Your task to perform on an android device: turn on javascript in the chrome app Image 0: 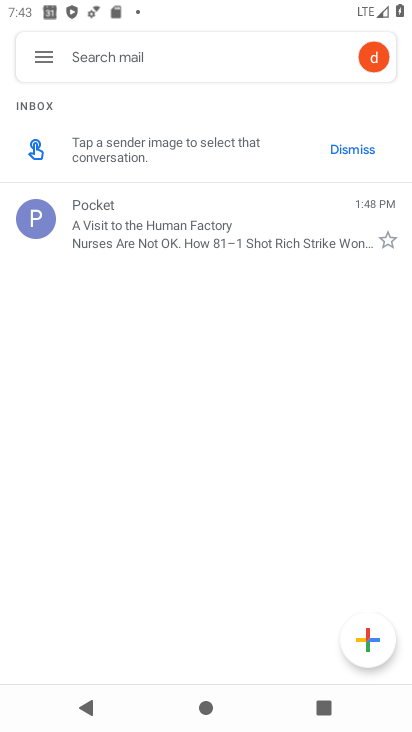
Step 0: press home button
Your task to perform on an android device: turn on javascript in the chrome app Image 1: 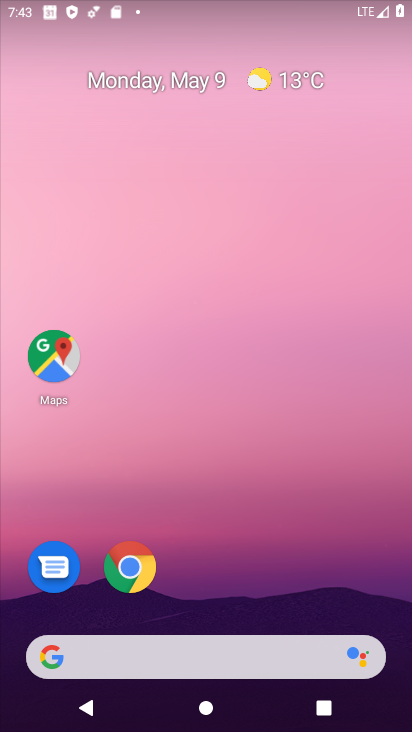
Step 1: click (131, 553)
Your task to perform on an android device: turn on javascript in the chrome app Image 2: 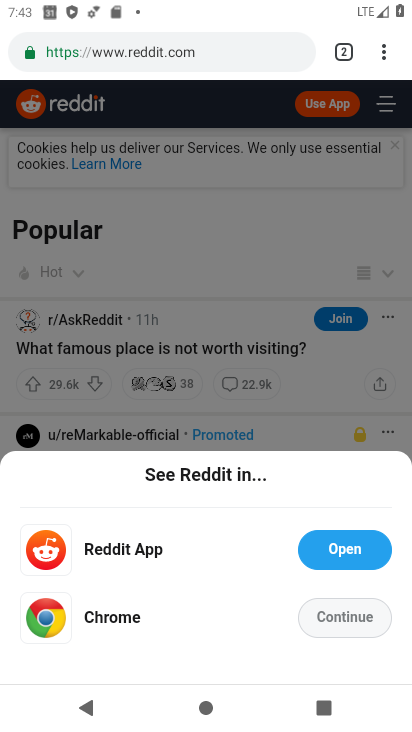
Step 2: click (335, 614)
Your task to perform on an android device: turn on javascript in the chrome app Image 3: 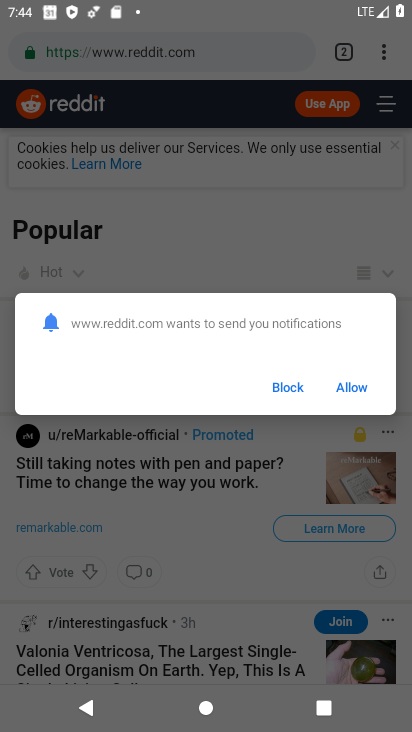
Step 3: click (276, 376)
Your task to perform on an android device: turn on javascript in the chrome app Image 4: 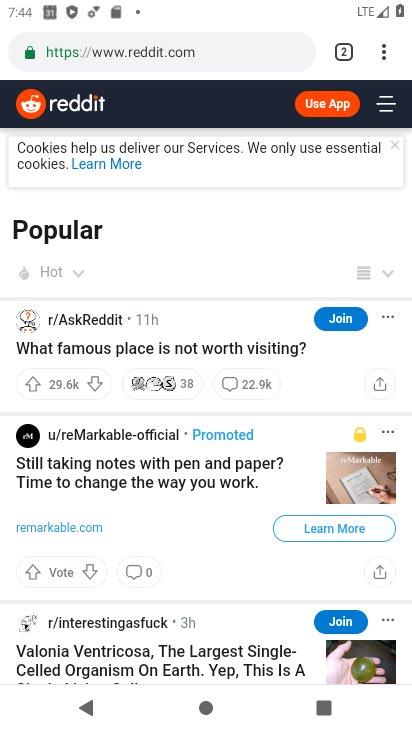
Step 4: click (381, 48)
Your task to perform on an android device: turn on javascript in the chrome app Image 5: 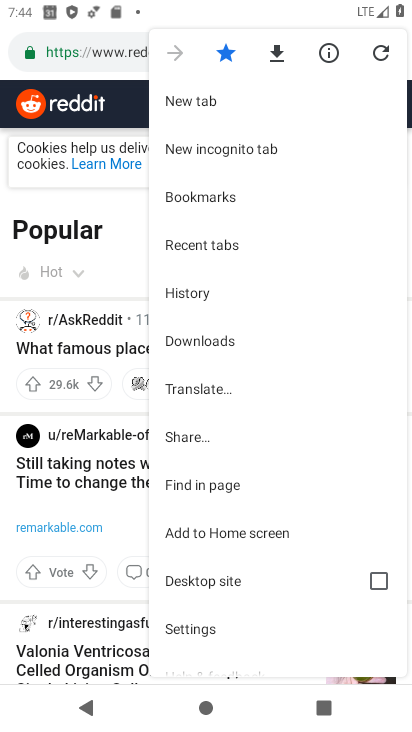
Step 5: click (326, 629)
Your task to perform on an android device: turn on javascript in the chrome app Image 6: 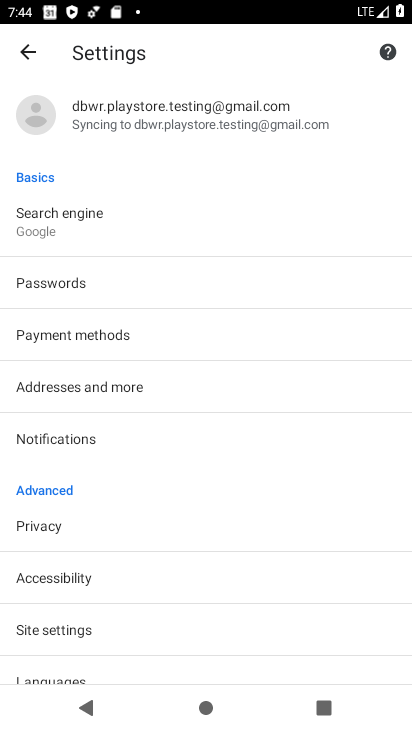
Step 6: click (326, 629)
Your task to perform on an android device: turn on javascript in the chrome app Image 7: 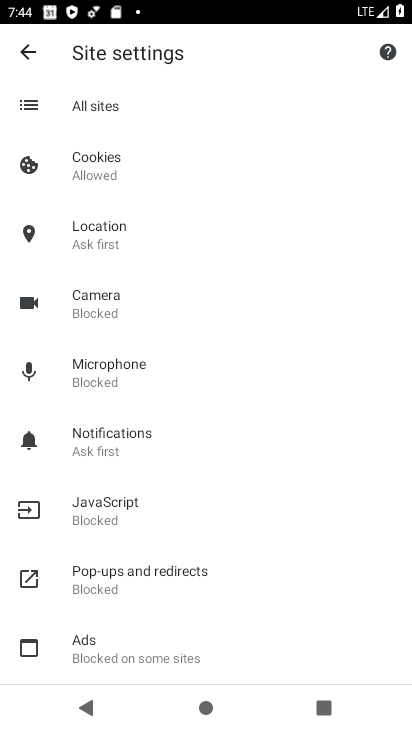
Step 7: click (137, 515)
Your task to perform on an android device: turn on javascript in the chrome app Image 8: 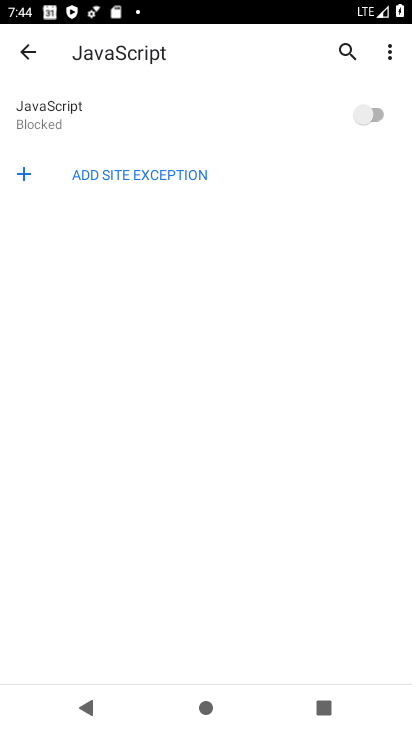
Step 8: click (366, 109)
Your task to perform on an android device: turn on javascript in the chrome app Image 9: 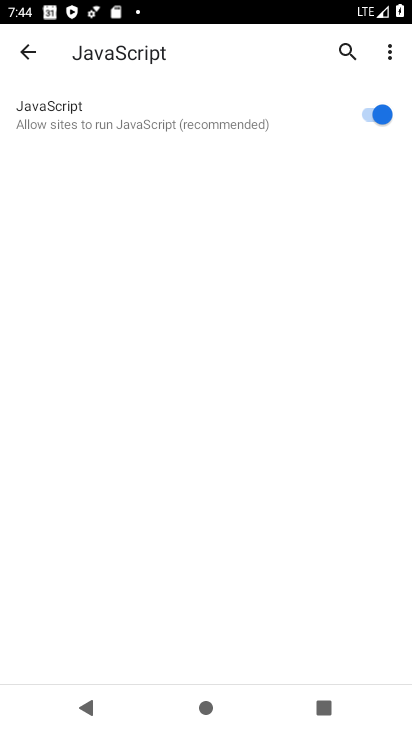
Step 9: task complete